Your task to perform on an android device: change notification settings in the gmail app Image 0: 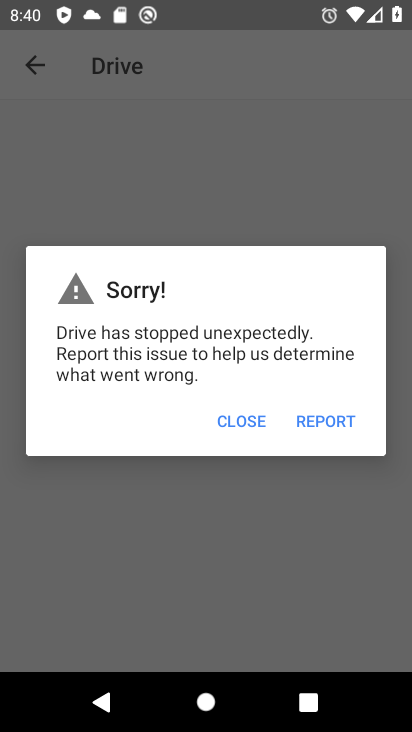
Step 0: press home button
Your task to perform on an android device: change notification settings in the gmail app Image 1: 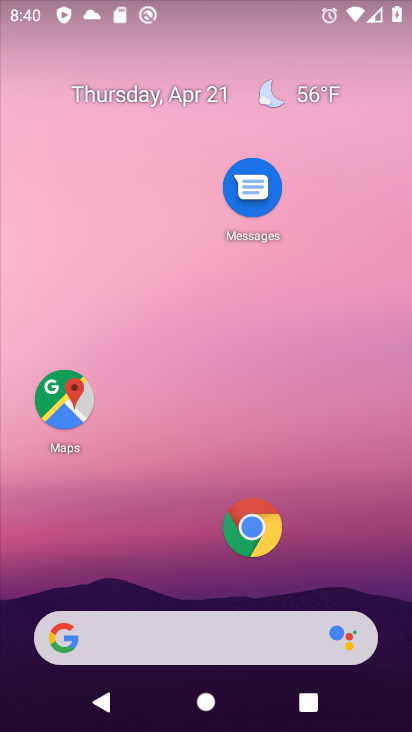
Step 1: drag from (166, 631) to (337, 70)
Your task to perform on an android device: change notification settings in the gmail app Image 2: 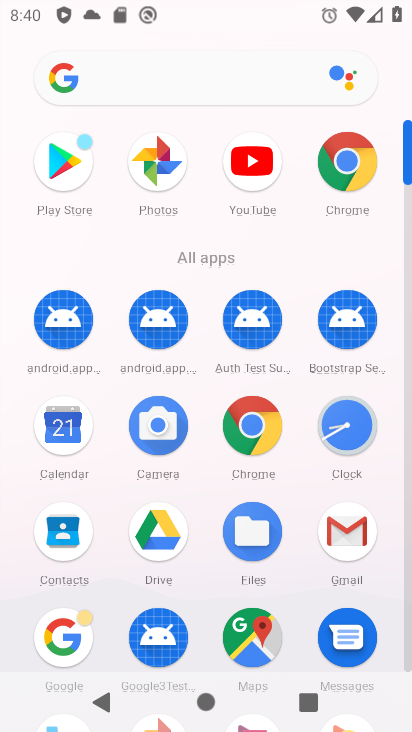
Step 2: click (341, 531)
Your task to perform on an android device: change notification settings in the gmail app Image 3: 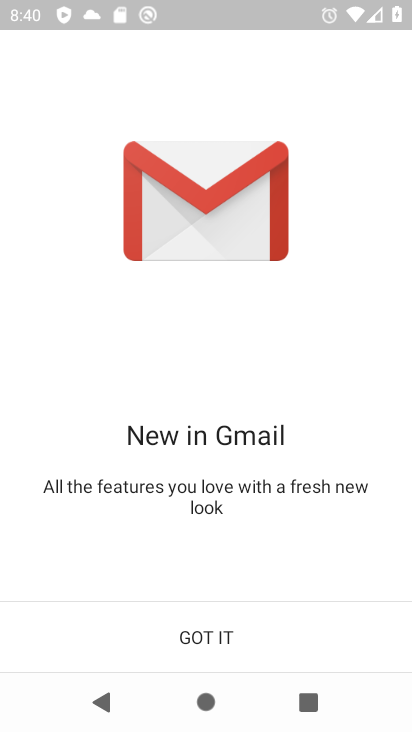
Step 3: click (213, 639)
Your task to perform on an android device: change notification settings in the gmail app Image 4: 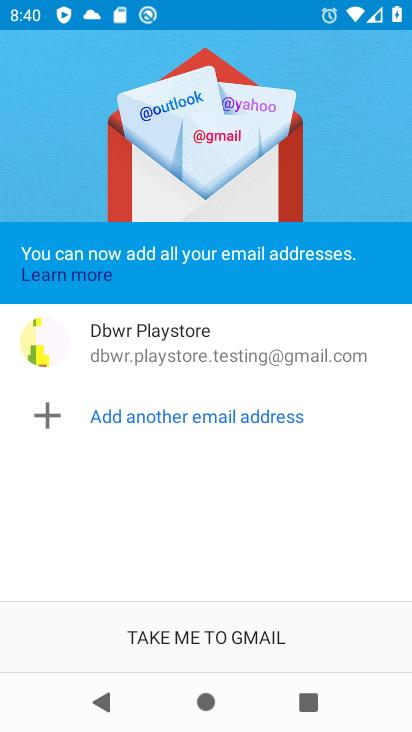
Step 4: click (213, 639)
Your task to perform on an android device: change notification settings in the gmail app Image 5: 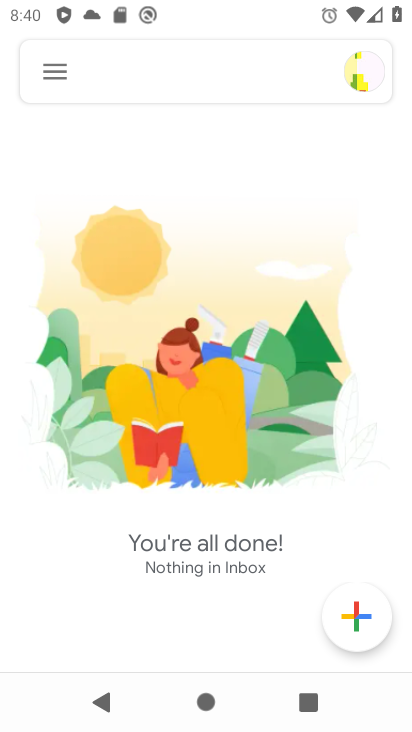
Step 5: click (60, 71)
Your task to perform on an android device: change notification settings in the gmail app Image 6: 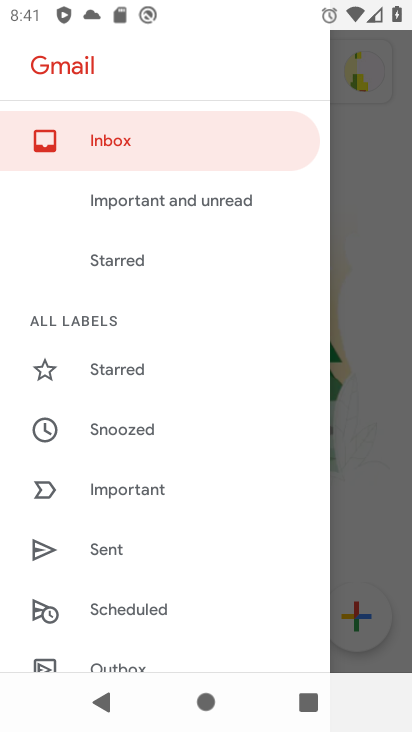
Step 6: drag from (167, 657) to (280, 82)
Your task to perform on an android device: change notification settings in the gmail app Image 7: 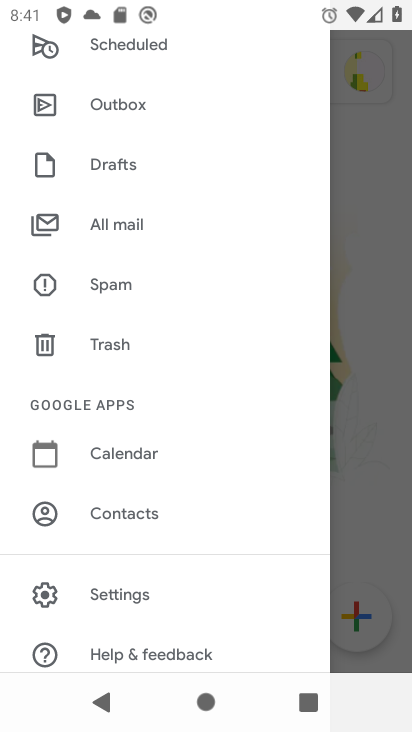
Step 7: click (132, 590)
Your task to perform on an android device: change notification settings in the gmail app Image 8: 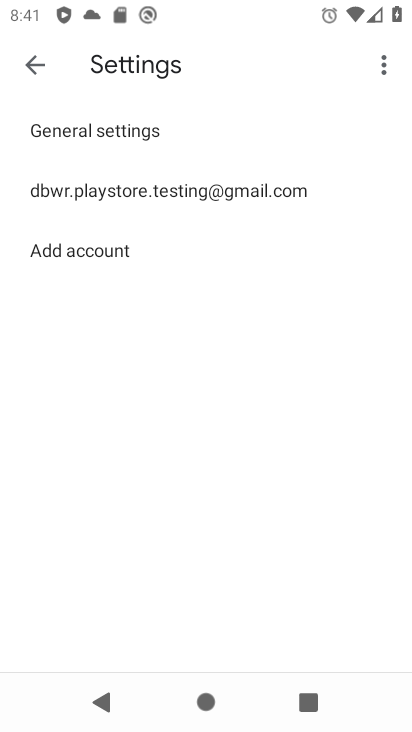
Step 8: click (203, 188)
Your task to perform on an android device: change notification settings in the gmail app Image 9: 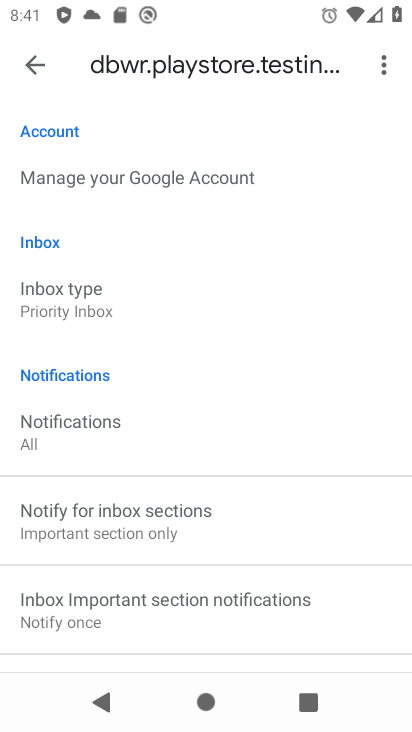
Step 9: click (83, 423)
Your task to perform on an android device: change notification settings in the gmail app Image 10: 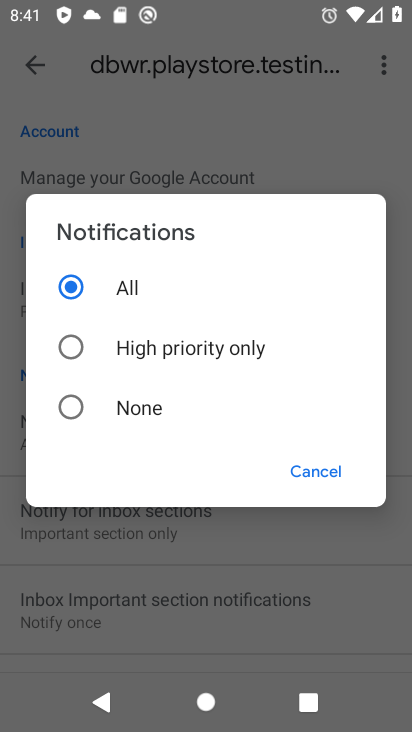
Step 10: click (79, 405)
Your task to perform on an android device: change notification settings in the gmail app Image 11: 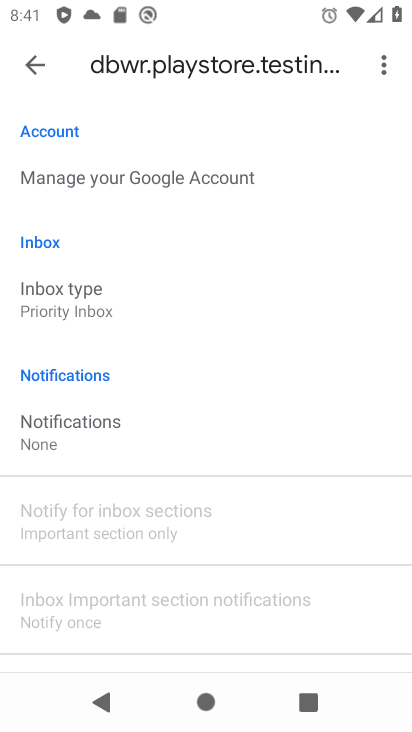
Step 11: task complete